Your task to perform on an android device: Open notification settings Image 0: 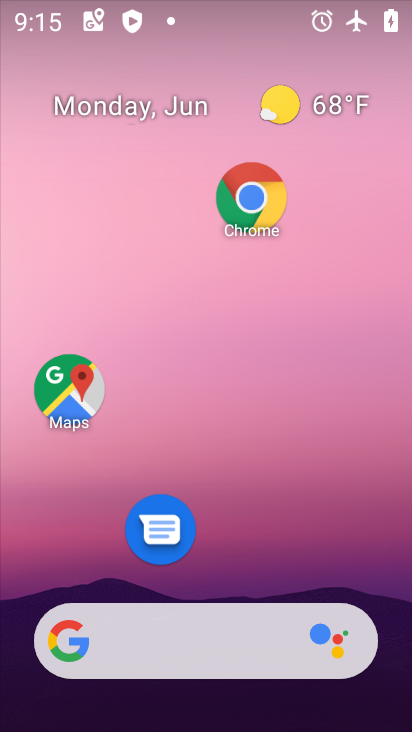
Step 0: drag from (204, 534) to (184, 111)
Your task to perform on an android device: Open notification settings Image 1: 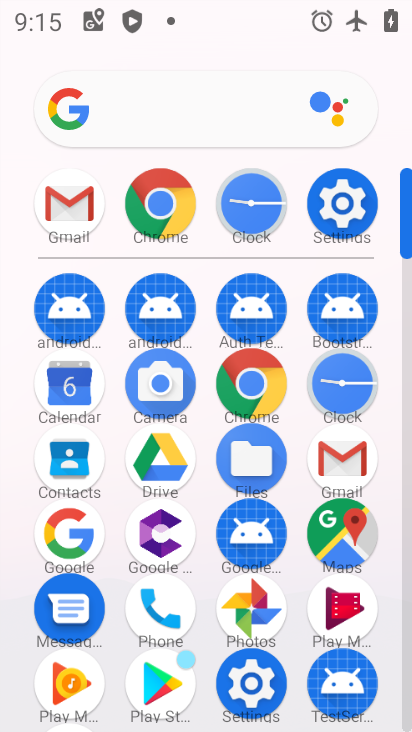
Step 1: click (353, 227)
Your task to perform on an android device: Open notification settings Image 2: 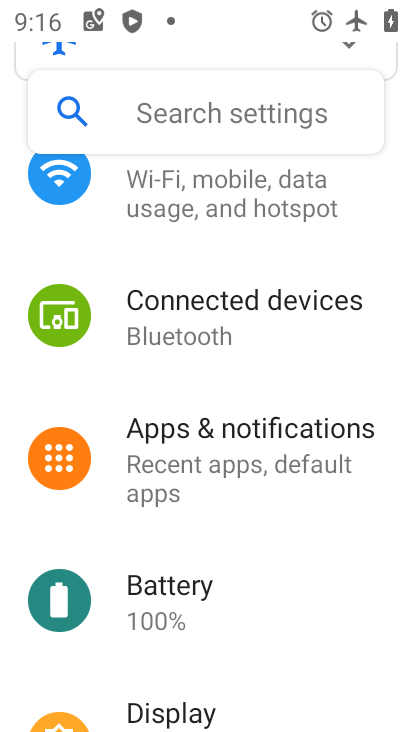
Step 2: drag from (246, 307) to (236, 528)
Your task to perform on an android device: Open notification settings Image 3: 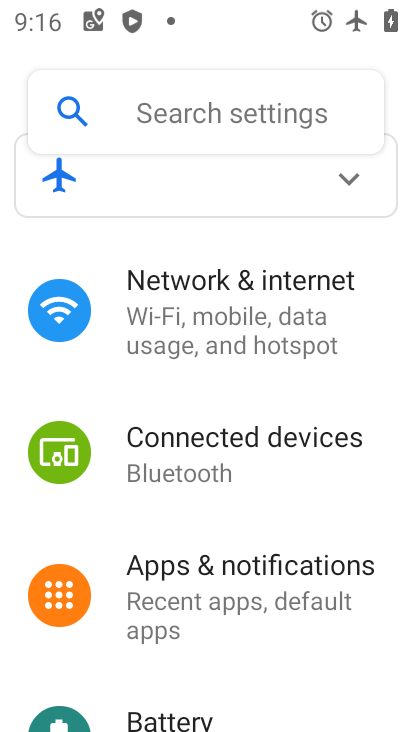
Step 3: click (237, 554)
Your task to perform on an android device: Open notification settings Image 4: 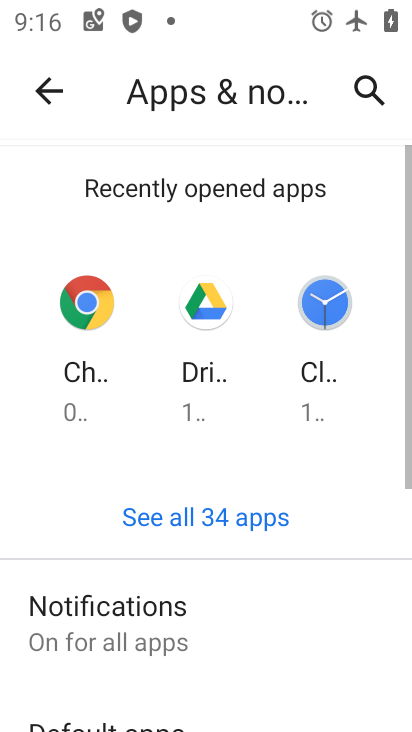
Step 4: drag from (234, 628) to (251, 310)
Your task to perform on an android device: Open notification settings Image 5: 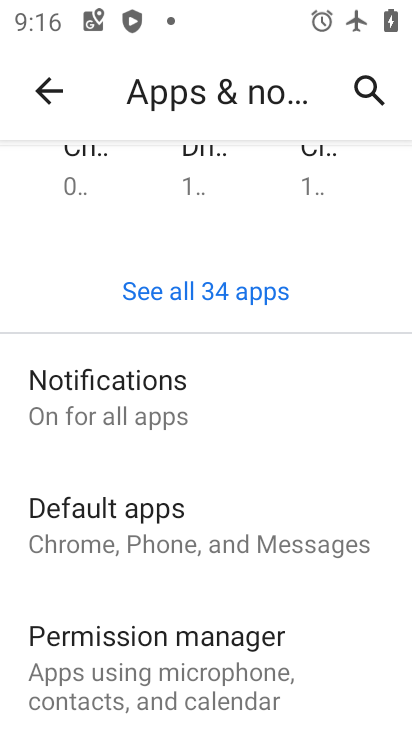
Step 5: click (199, 403)
Your task to perform on an android device: Open notification settings Image 6: 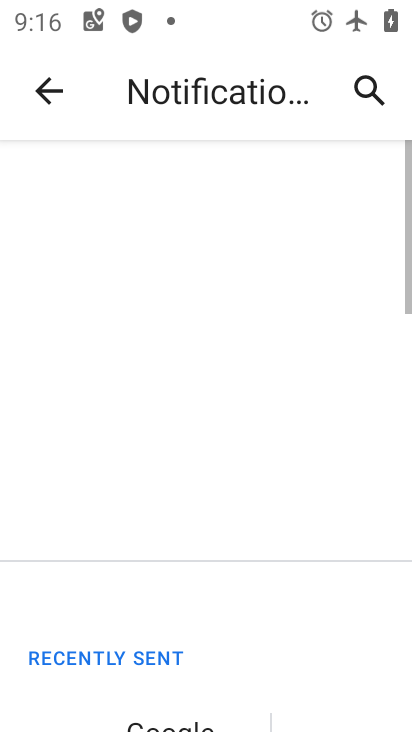
Step 6: drag from (236, 547) to (265, 246)
Your task to perform on an android device: Open notification settings Image 7: 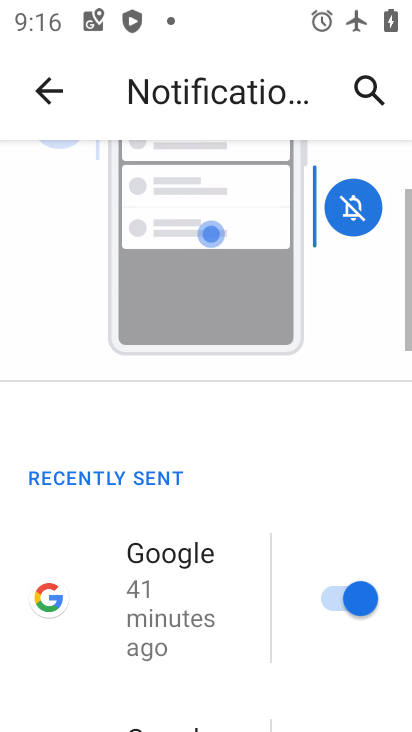
Step 7: drag from (261, 396) to (261, 228)
Your task to perform on an android device: Open notification settings Image 8: 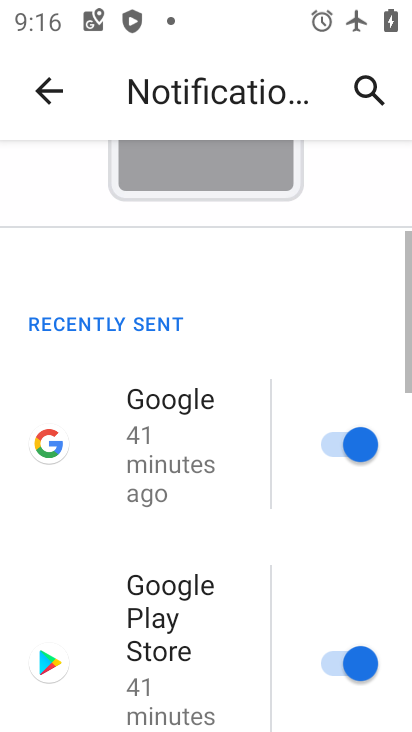
Step 8: drag from (240, 610) to (248, 224)
Your task to perform on an android device: Open notification settings Image 9: 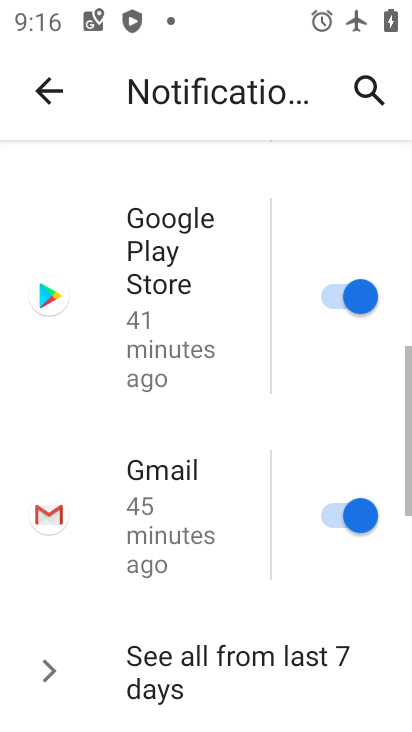
Step 9: drag from (180, 596) to (183, 217)
Your task to perform on an android device: Open notification settings Image 10: 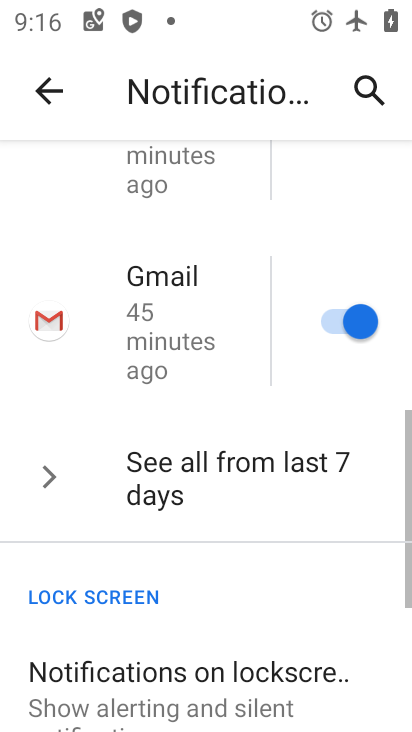
Step 10: click (228, 229)
Your task to perform on an android device: Open notification settings Image 11: 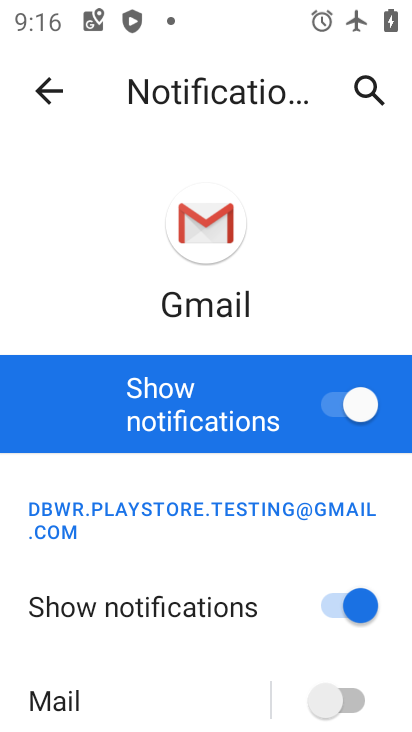
Step 11: click (46, 79)
Your task to perform on an android device: Open notification settings Image 12: 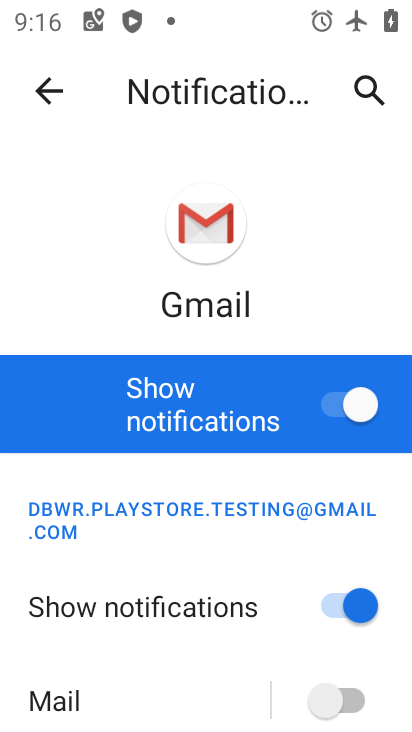
Step 12: task complete